Your task to perform on an android device: Search for Mexican restaurants on Maps Image 0: 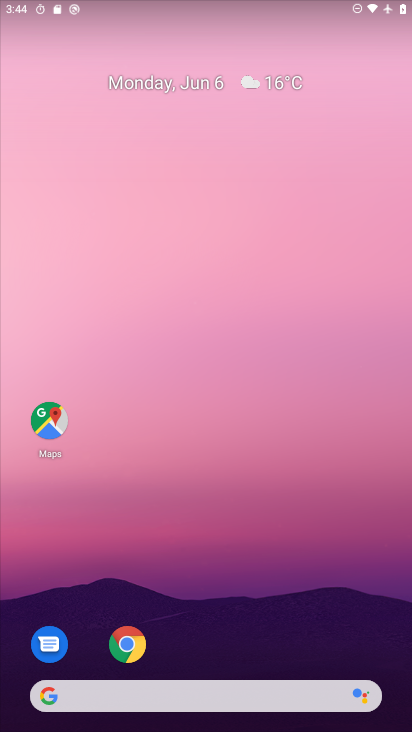
Step 0: click (51, 423)
Your task to perform on an android device: Search for Mexican restaurants on Maps Image 1: 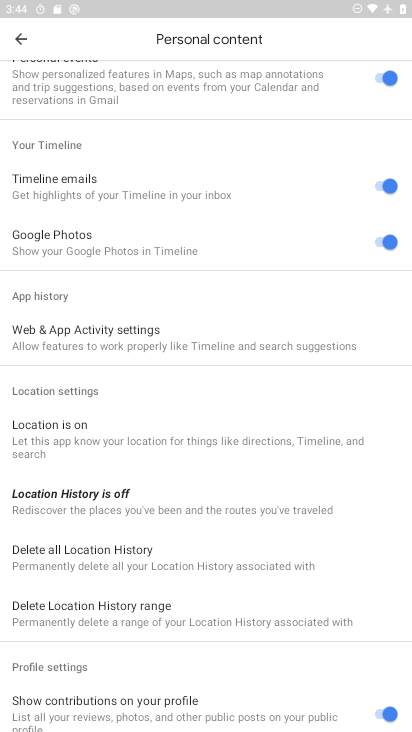
Step 1: click (26, 41)
Your task to perform on an android device: Search for Mexican restaurants on Maps Image 2: 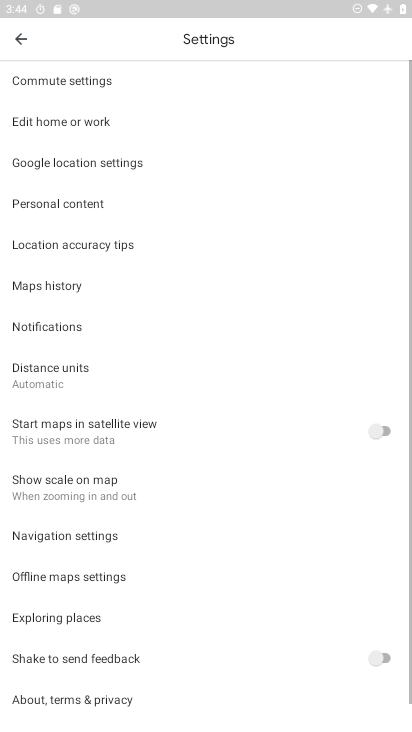
Step 2: click (26, 41)
Your task to perform on an android device: Search for Mexican restaurants on Maps Image 3: 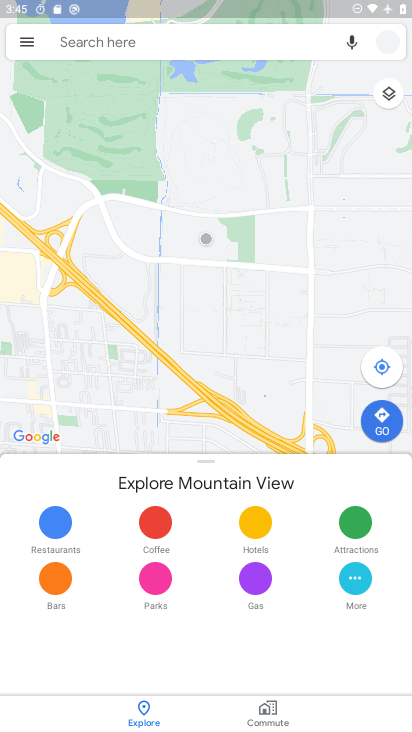
Step 3: click (197, 40)
Your task to perform on an android device: Search for Mexican restaurants on Maps Image 4: 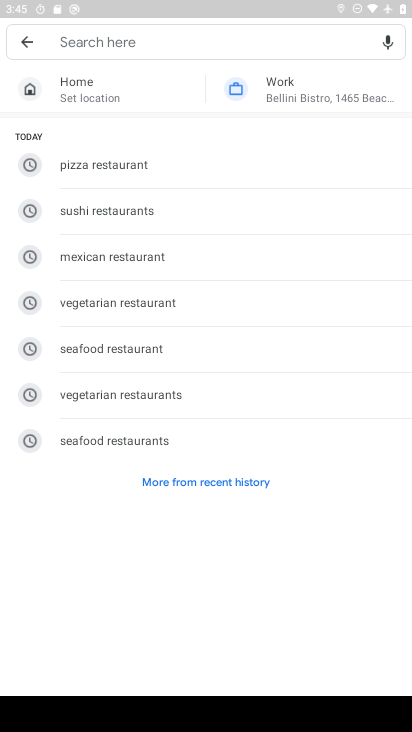
Step 4: type "me"
Your task to perform on an android device: Search for Mexican restaurants on Maps Image 5: 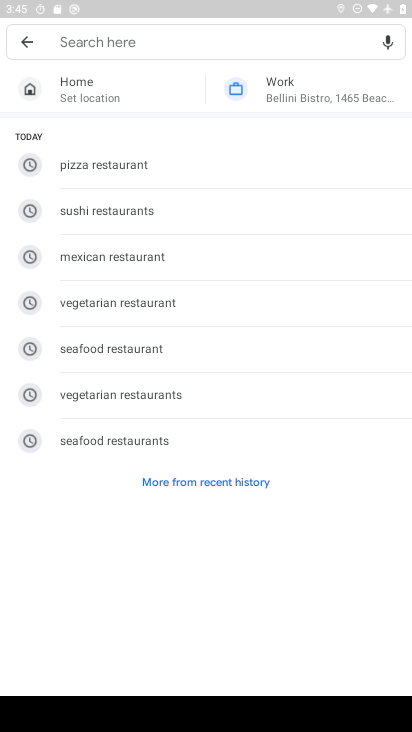
Step 5: click (139, 270)
Your task to perform on an android device: Search for Mexican restaurants on Maps Image 6: 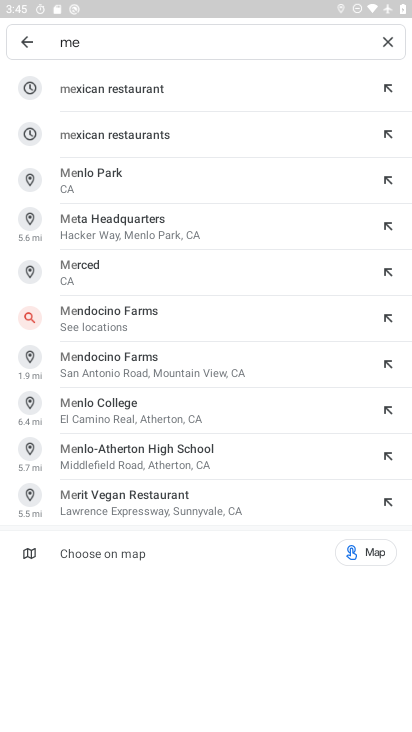
Step 6: click (121, 97)
Your task to perform on an android device: Search for Mexican restaurants on Maps Image 7: 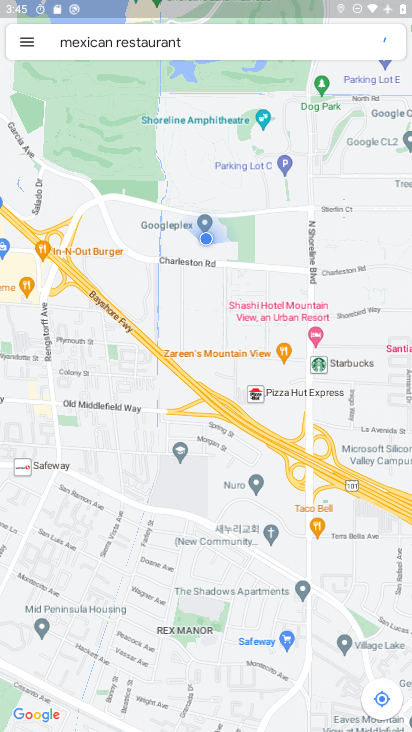
Step 7: task complete